Your task to perform on an android device: set default search engine in the chrome app Image 0: 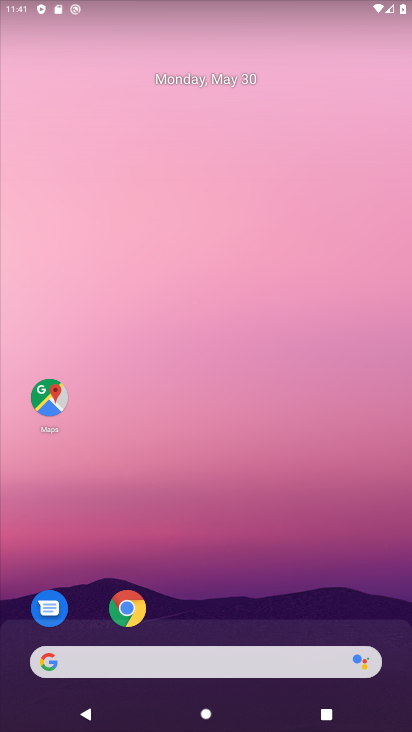
Step 0: click (124, 589)
Your task to perform on an android device: set default search engine in the chrome app Image 1: 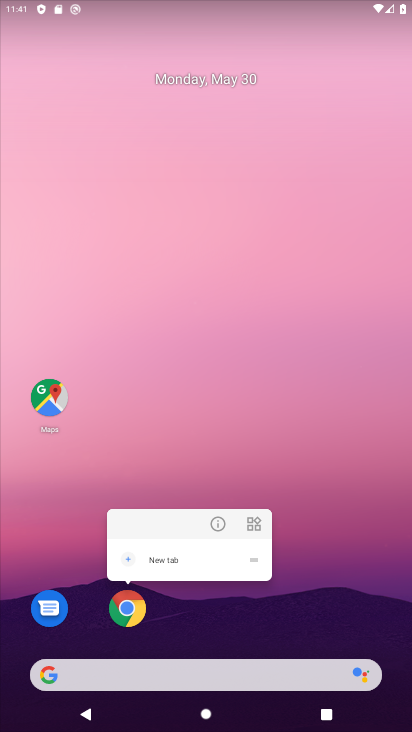
Step 1: click (133, 614)
Your task to perform on an android device: set default search engine in the chrome app Image 2: 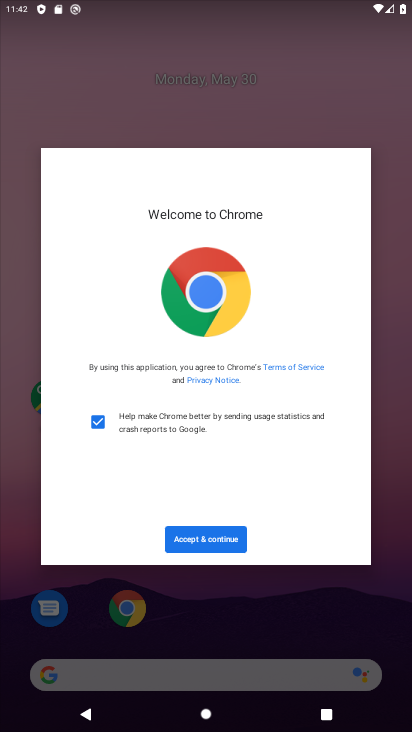
Step 2: click (196, 535)
Your task to perform on an android device: set default search engine in the chrome app Image 3: 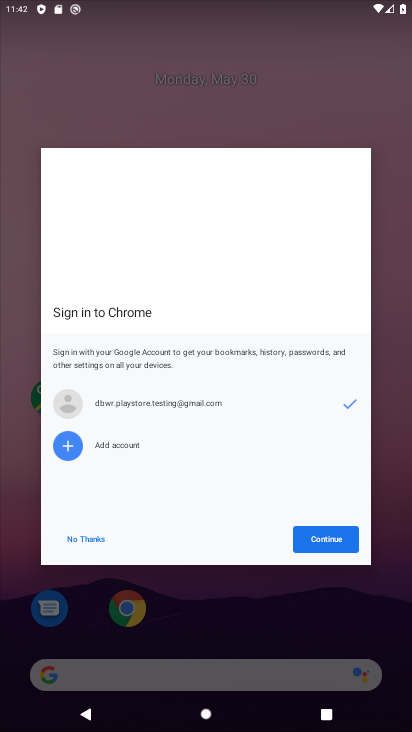
Step 3: click (337, 540)
Your task to perform on an android device: set default search engine in the chrome app Image 4: 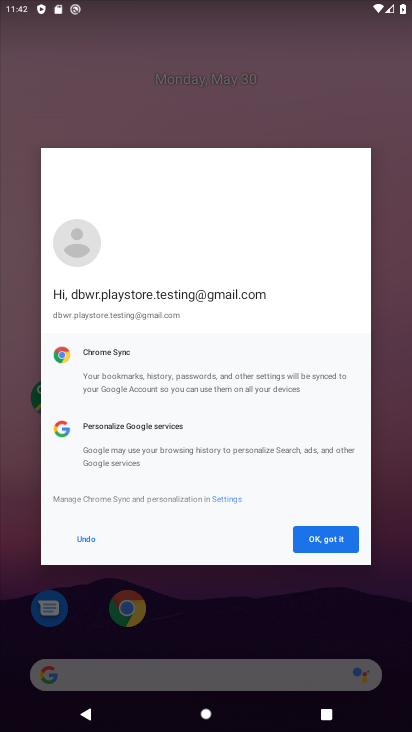
Step 4: click (337, 540)
Your task to perform on an android device: set default search engine in the chrome app Image 5: 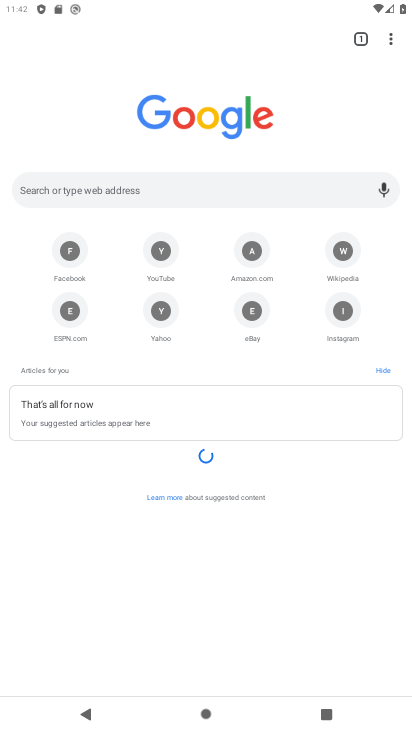
Step 5: drag from (389, 31) to (283, 332)
Your task to perform on an android device: set default search engine in the chrome app Image 6: 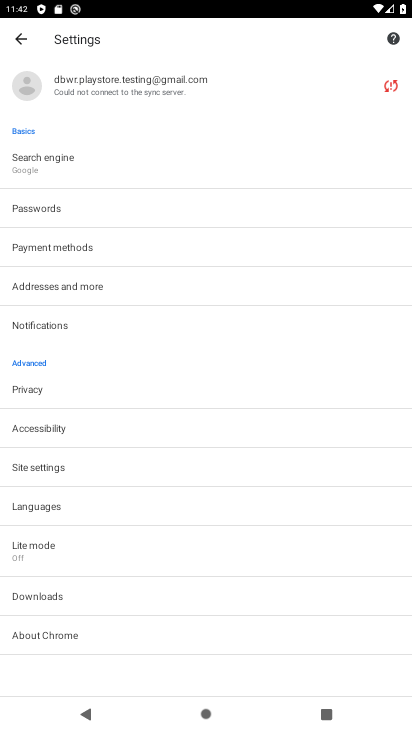
Step 6: click (85, 153)
Your task to perform on an android device: set default search engine in the chrome app Image 7: 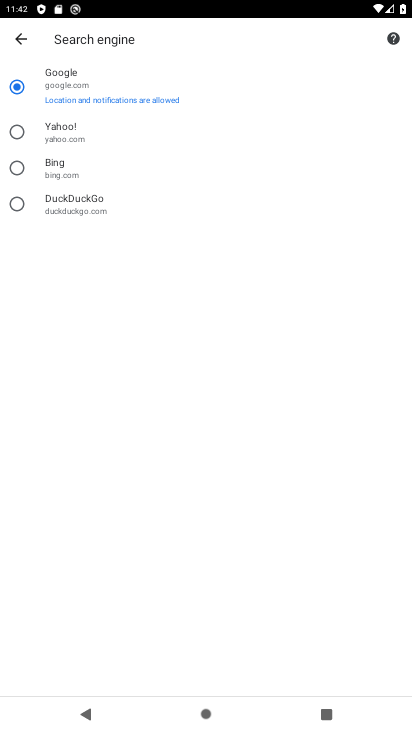
Step 7: click (99, 102)
Your task to perform on an android device: set default search engine in the chrome app Image 8: 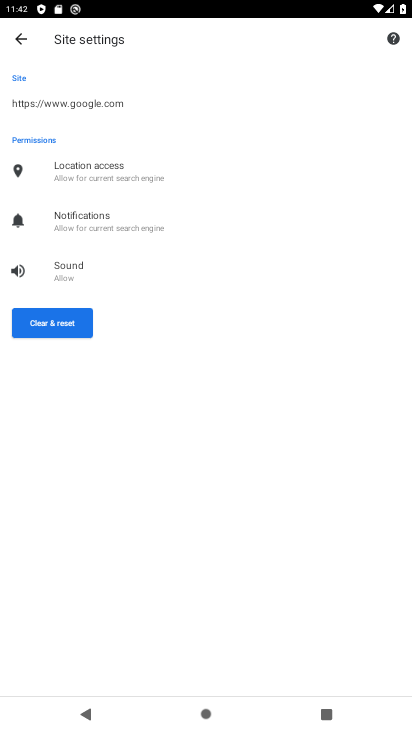
Step 8: click (122, 107)
Your task to perform on an android device: set default search engine in the chrome app Image 9: 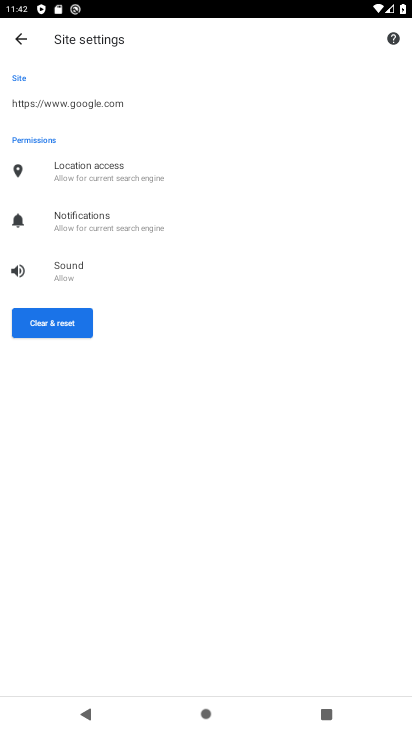
Step 9: click (21, 75)
Your task to perform on an android device: set default search engine in the chrome app Image 10: 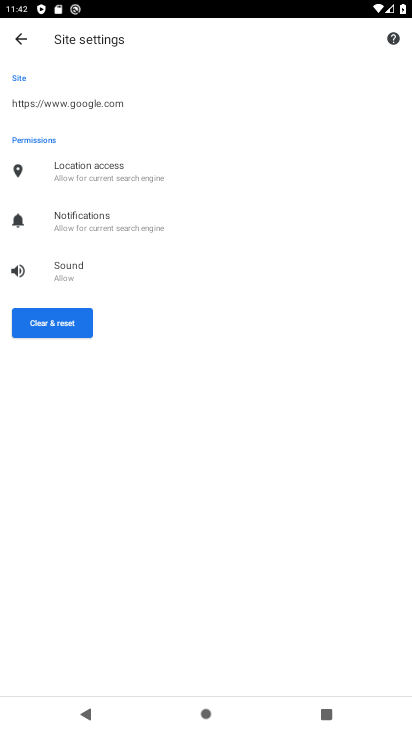
Step 10: drag from (144, 102) to (82, 102)
Your task to perform on an android device: set default search engine in the chrome app Image 11: 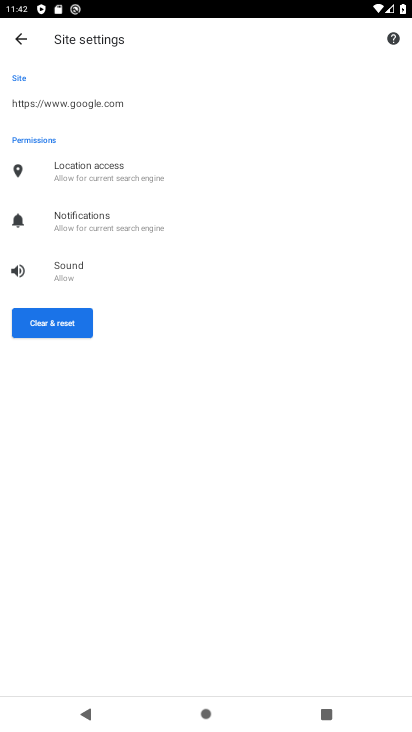
Step 11: click (86, 102)
Your task to perform on an android device: set default search engine in the chrome app Image 12: 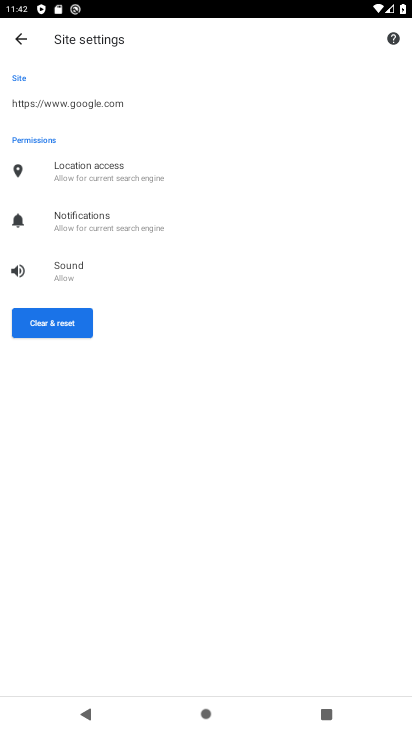
Step 12: click (87, 108)
Your task to perform on an android device: set default search engine in the chrome app Image 13: 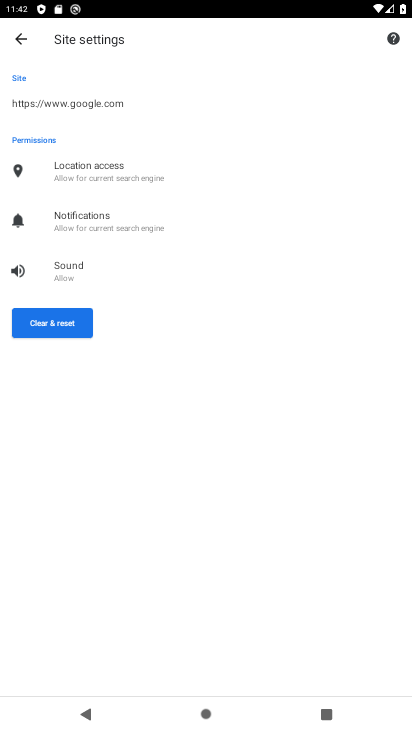
Step 13: task complete